Your task to perform on an android device: open the mobile data screen to see how much data has been used Image 0: 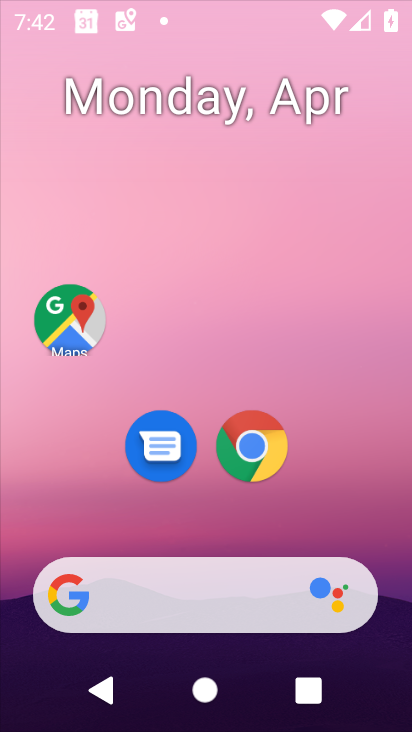
Step 0: drag from (296, 250) to (241, 35)
Your task to perform on an android device: open the mobile data screen to see how much data has been used Image 1: 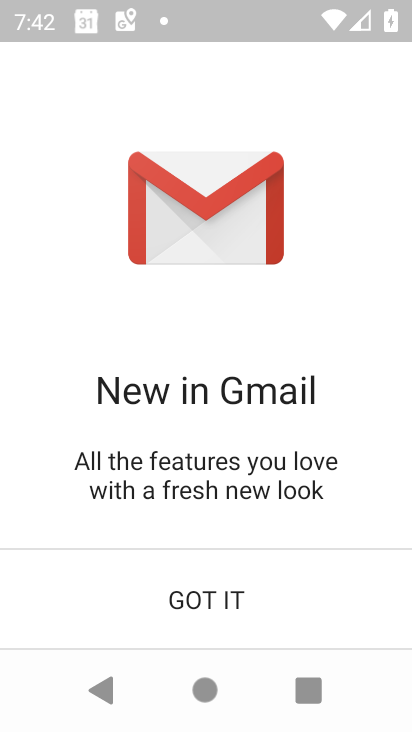
Step 1: press back button
Your task to perform on an android device: open the mobile data screen to see how much data has been used Image 2: 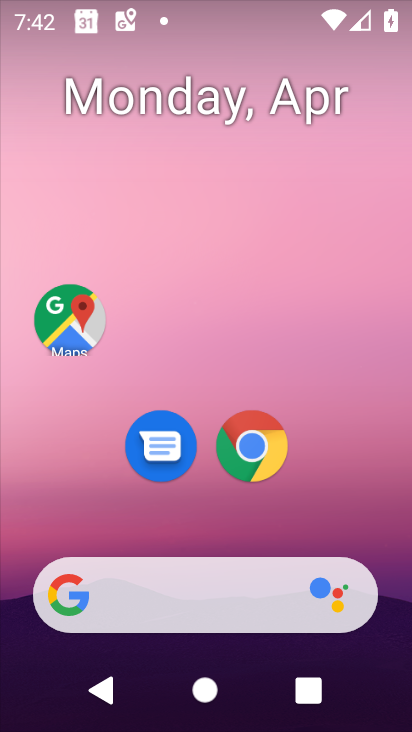
Step 2: drag from (395, 599) to (260, 23)
Your task to perform on an android device: open the mobile data screen to see how much data has been used Image 3: 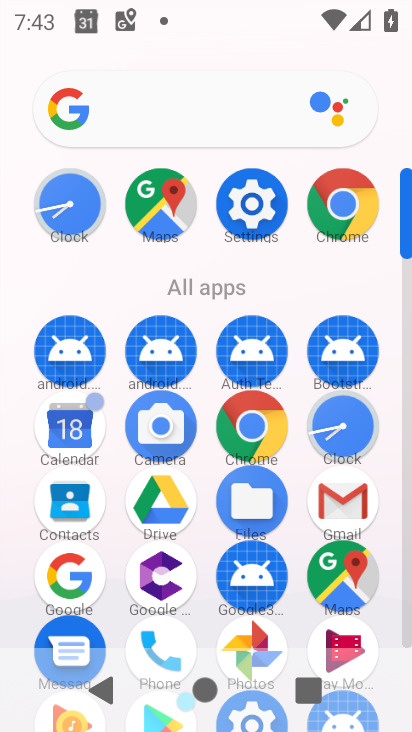
Step 3: click (246, 203)
Your task to perform on an android device: open the mobile data screen to see how much data has been used Image 4: 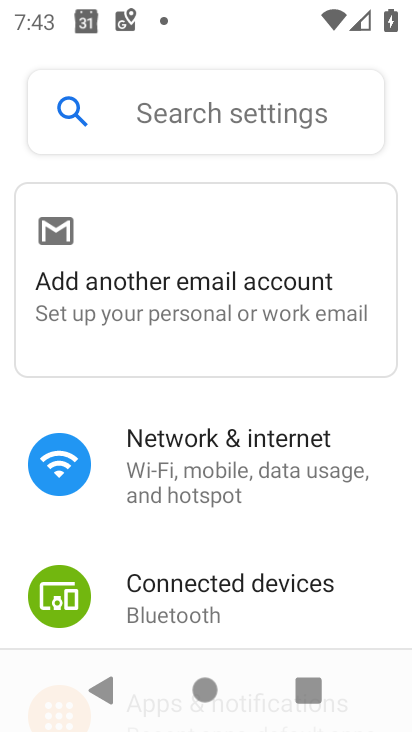
Step 4: click (270, 451)
Your task to perform on an android device: open the mobile data screen to see how much data has been used Image 5: 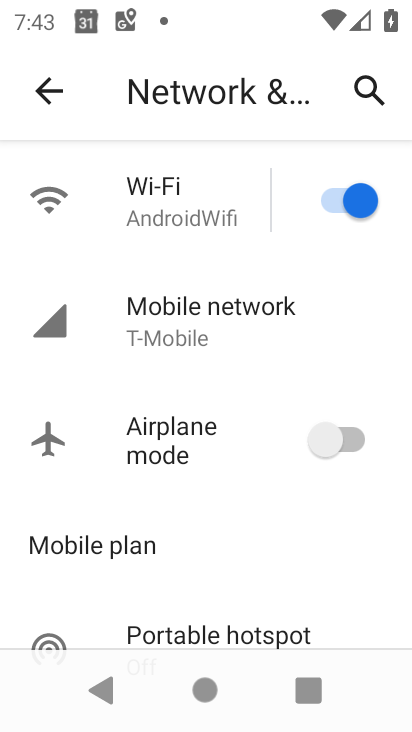
Step 5: click (210, 336)
Your task to perform on an android device: open the mobile data screen to see how much data has been used Image 6: 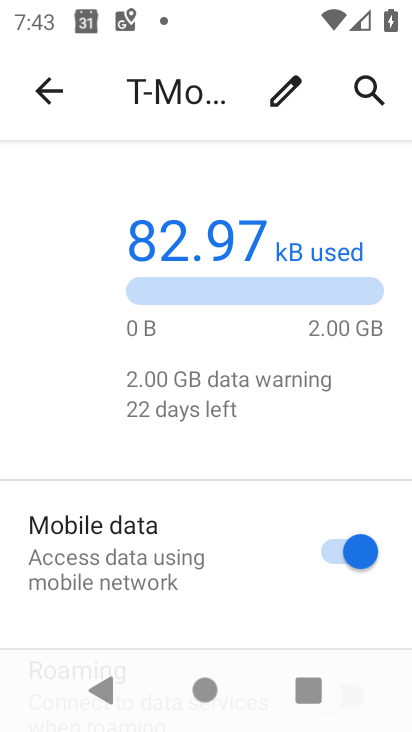
Step 6: task complete